Your task to perform on an android device: Open Chrome and go to the settings page Image 0: 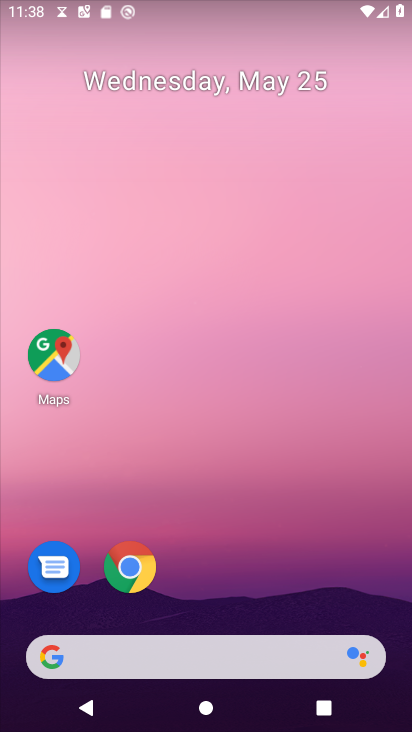
Step 0: click (235, 24)
Your task to perform on an android device: Open Chrome and go to the settings page Image 1: 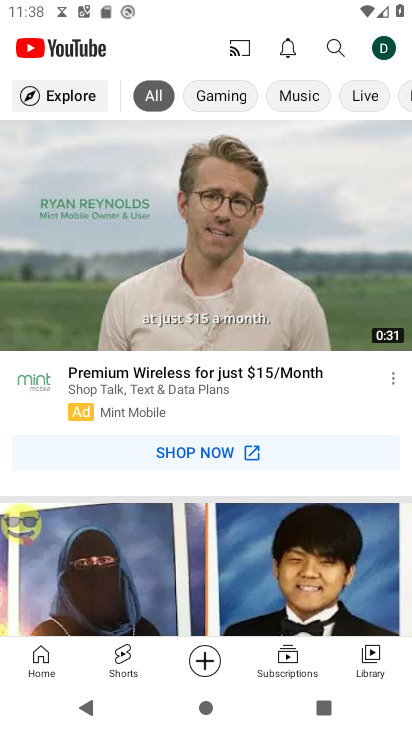
Step 1: press home button
Your task to perform on an android device: Open Chrome and go to the settings page Image 2: 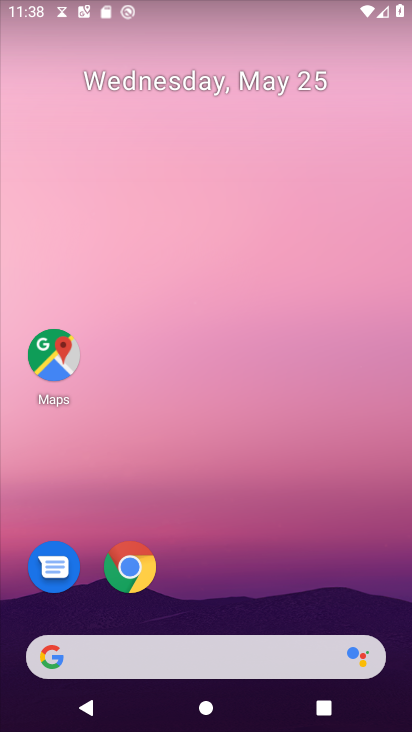
Step 2: click (134, 584)
Your task to perform on an android device: Open Chrome and go to the settings page Image 3: 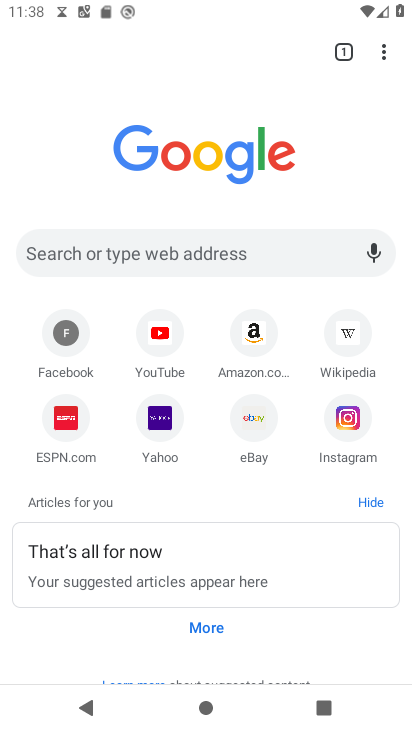
Step 3: click (393, 54)
Your task to perform on an android device: Open Chrome and go to the settings page Image 4: 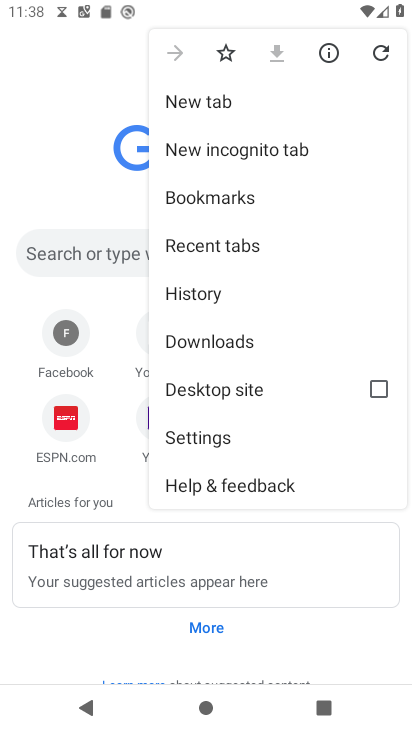
Step 4: click (177, 430)
Your task to perform on an android device: Open Chrome and go to the settings page Image 5: 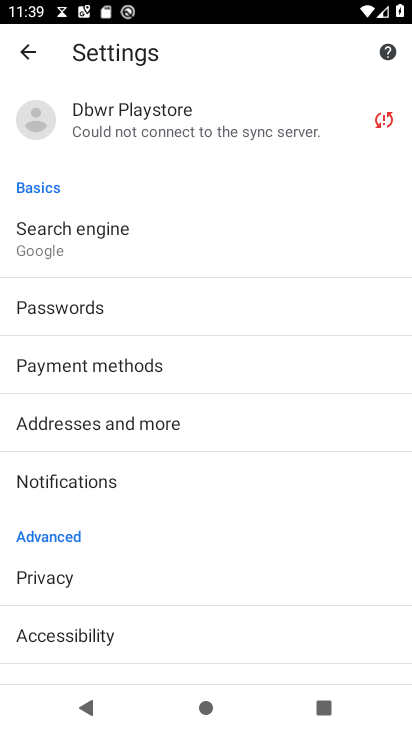
Step 5: task complete